Your task to perform on an android device: Go to notification settings Image 0: 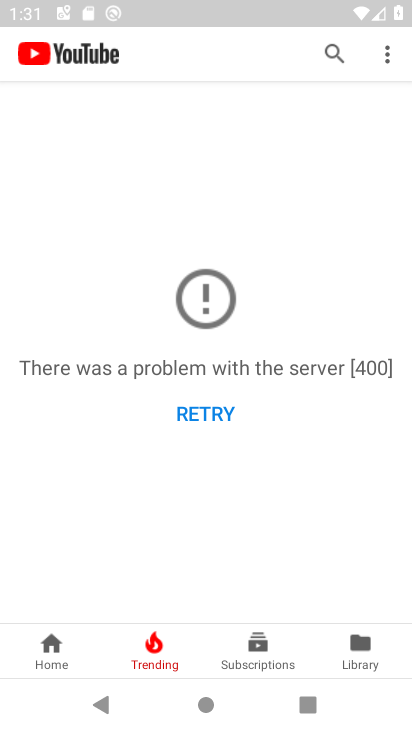
Step 0: press home button
Your task to perform on an android device: Go to notification settings Image 1: 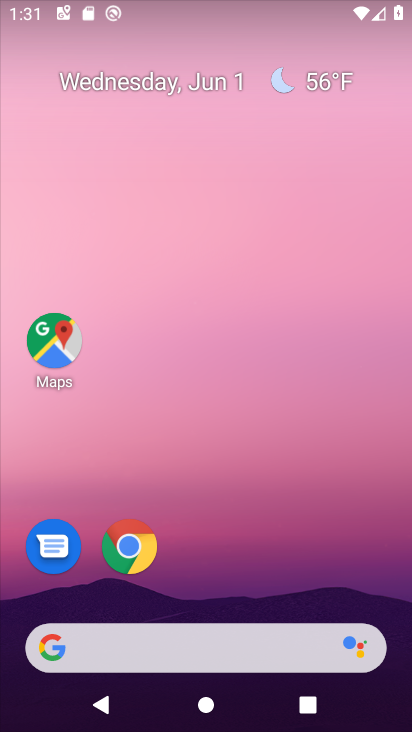
Step 1: drag from (174, 459) to (188, 73)
Your task to perform on an android device: Go to notification settings Image 2: 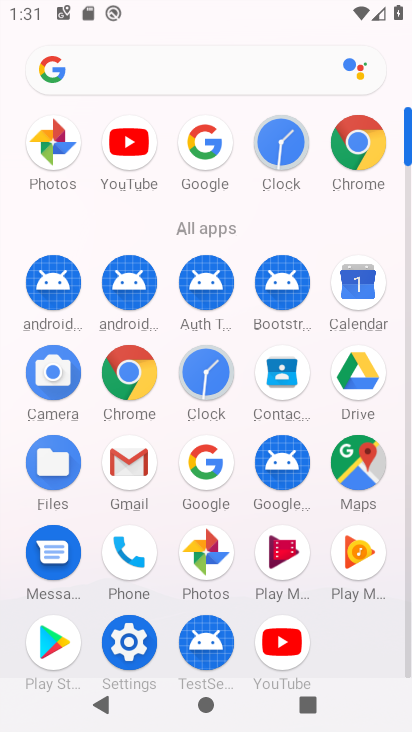
Step 2: click (115, 645)
Your task to perform on an android device: Go to notification settings Image 3: 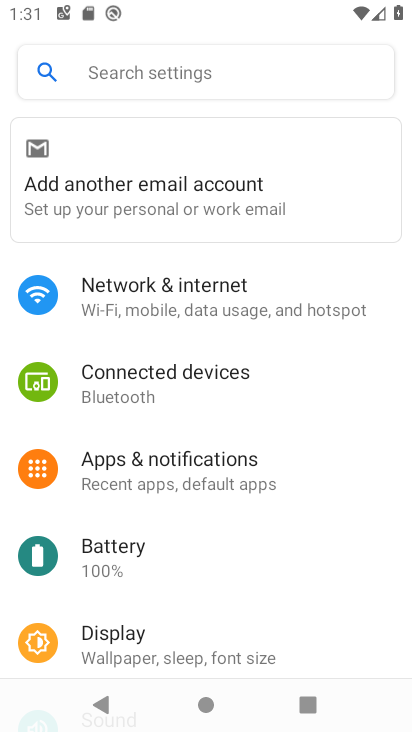
Step 3: click (184, 471)
Your task to perform on an android device: Go to notification settings Image 4: 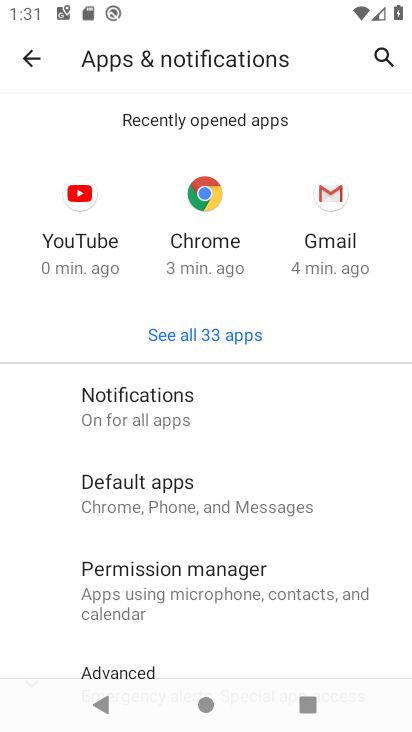
Step 4: click (166, 433)
Your task to perform on an android device: Go to notification settings Image 5: 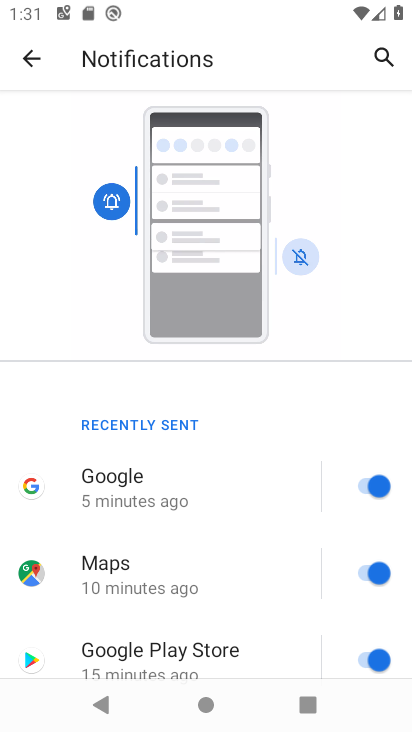
Step 5: task complete